Your task to perform on an android device: clear all cookies in the chrome app Image 0: 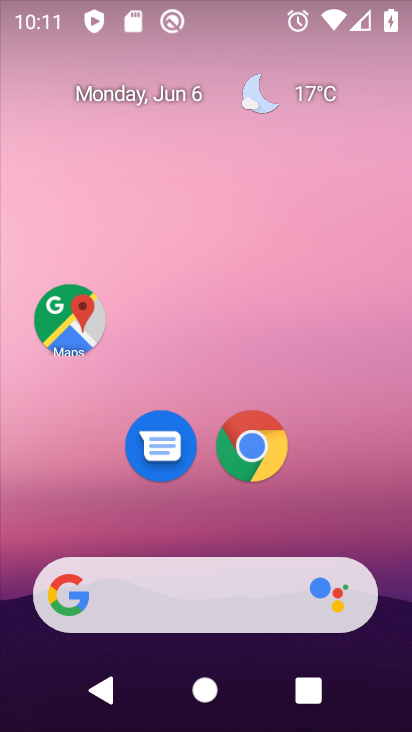
Step 0: click (262, 420)
Your task to perform on an android device: clear all cookies in the chrome app Image 1: 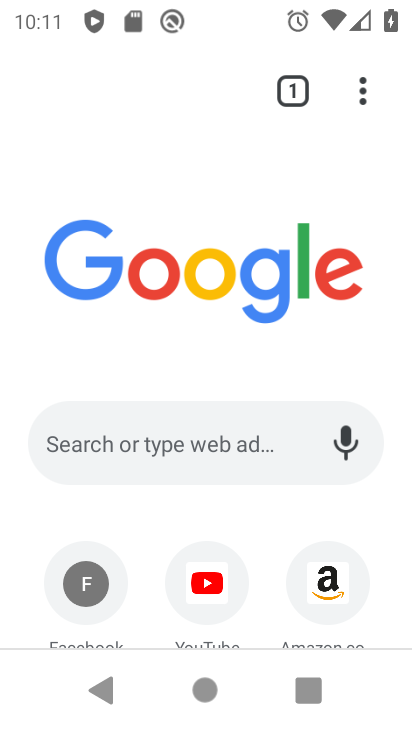
Step 1: click (375, 107)
Your task to perform on an android device: clear all cookies in the chrome app Image 2: 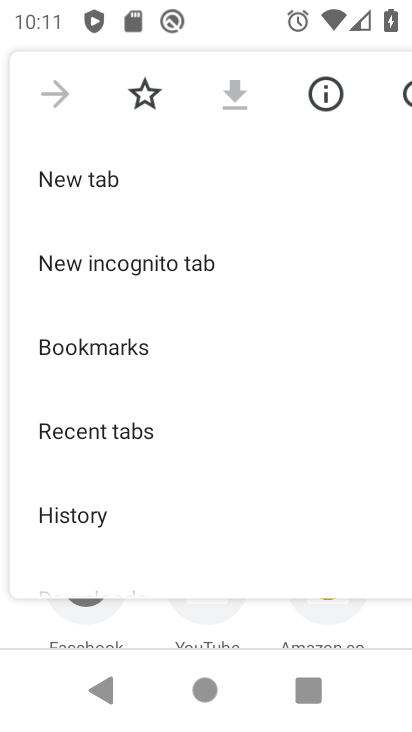
Step 2: drag from (196, 424) to (136, 236)
Your task to perform on an android device: clear all cookies in the chrome app Image 3: 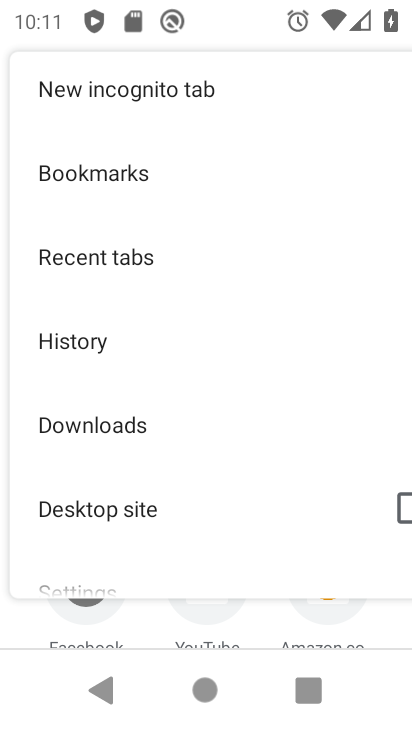
Step 3: click (57, 358)
Your task to perform on an android device: clear all cookies in the chrome app Image 4: 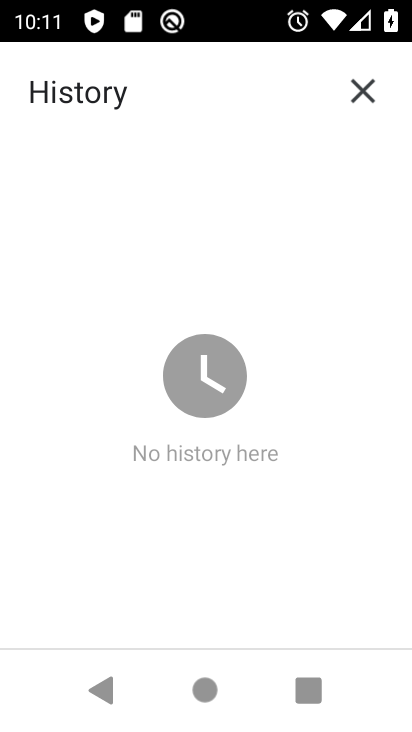
Step 4: task complete